Your task to perform on an android device: Go to Android settings Image 0: 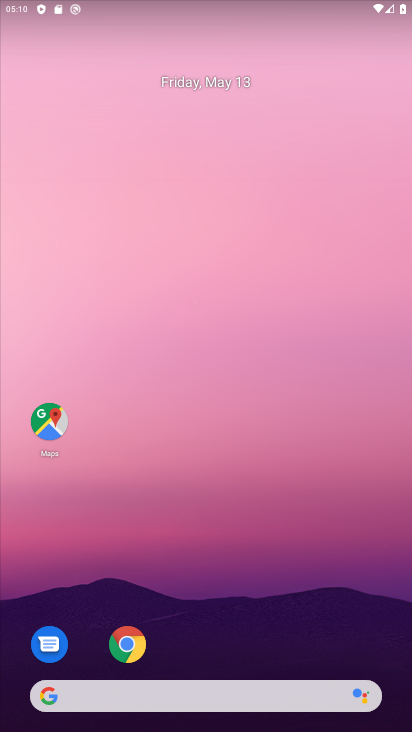
Step 0: drag from (274, 617) to (292, 86)
Your task to perform on an android device: Go to Android settings Image 1: 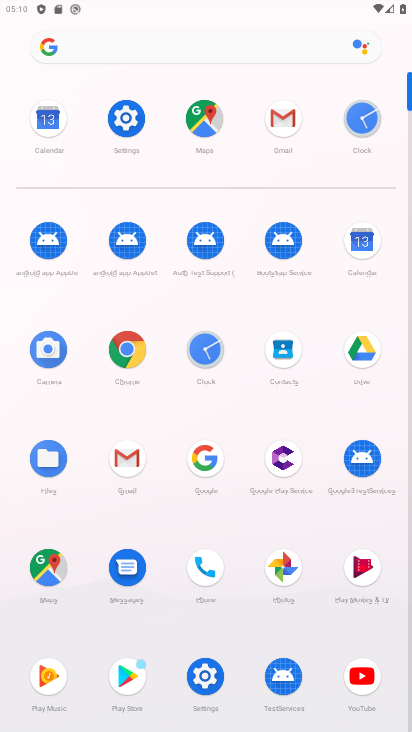
Step 1: click (126, 123)
Your task to perform on an android device: Go to Android settings Image 2: 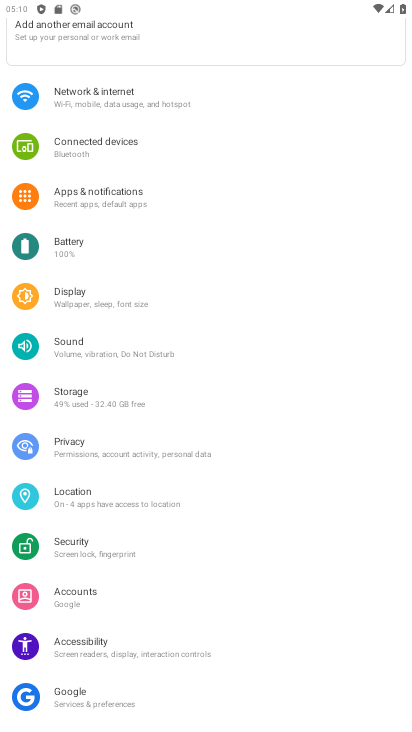
Step 2: drag from (175, 691) to (249, 157)
Your task to perform on an android device: Go to Android settings Image 3: 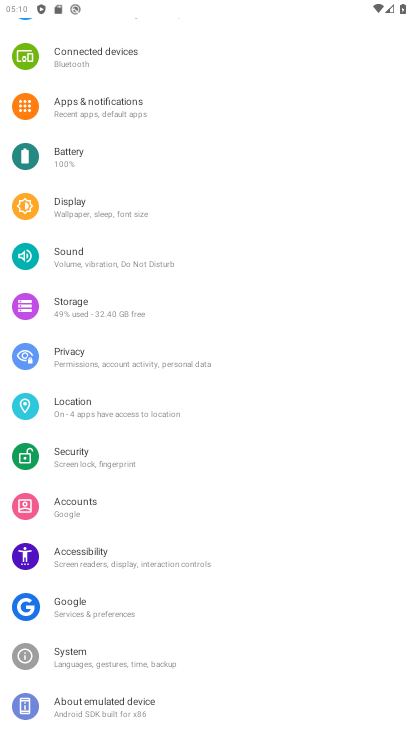
Step 3: drag from (151, 672) to (249, 114)
Your task to perform on an android device: Go to Android settings Image 4: 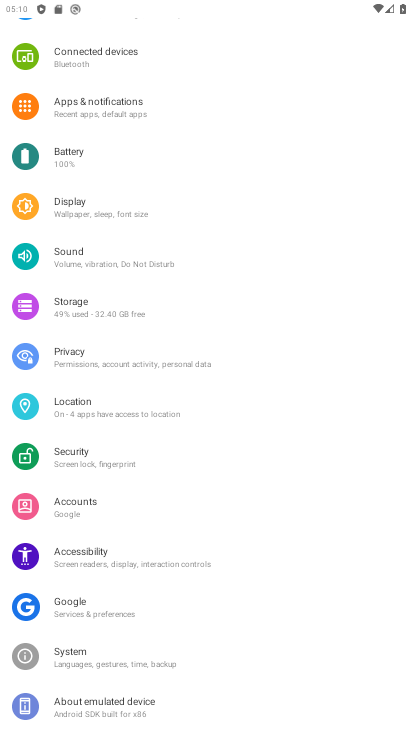
Step 4: click (162, 707)
Your task to perform on an android device: Go to Android settings Image 5: 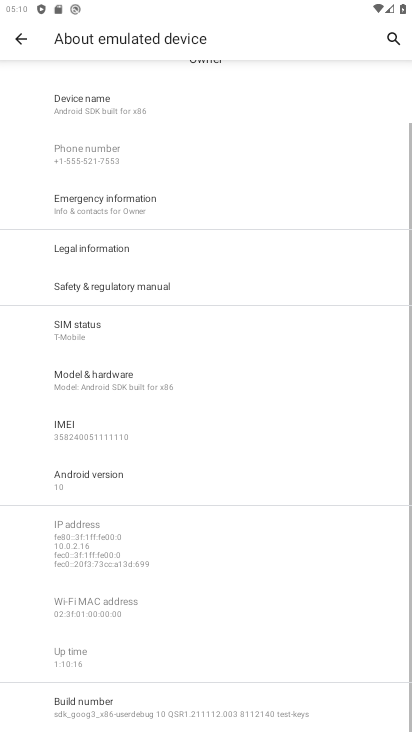
Step 5: task complete